Your task to perform on an android device: Open Yahoo.com Image 0: 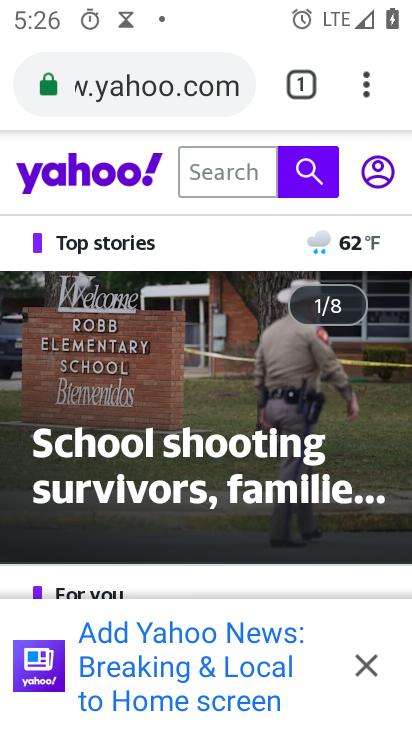
Step 0: task complete